Your task to perform on an android device: turn on improve location accuracy Image 0: 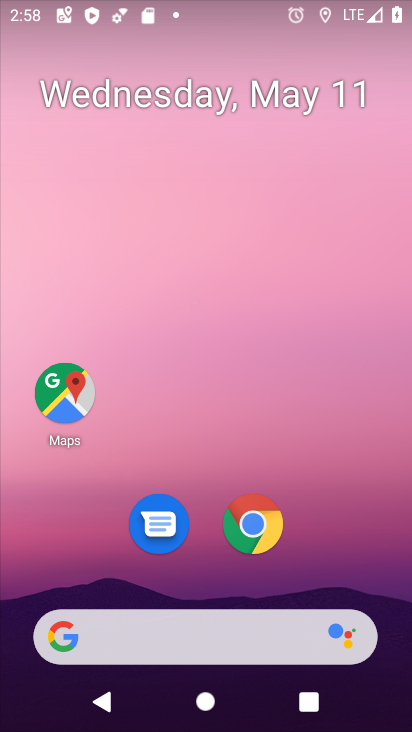
Step 0: drag from (321, 551) to (286, 35)
Your task to perform on an android device: turn on improve location accuracy Image 1: 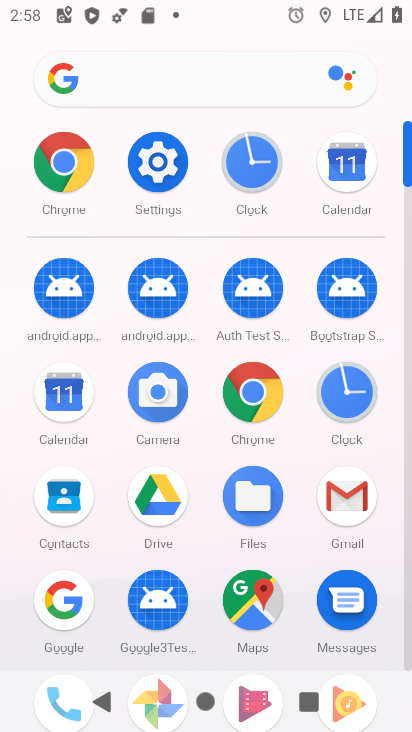
Step 1: click (167, 153)
Your task to perform on an android device: turn on improve location accuracy Image 2: 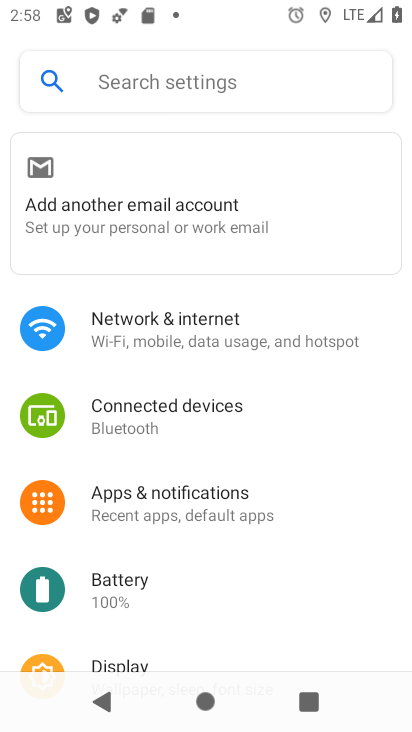
Step 2: drag from (227, 560) to (243, 332)
Your task to perform on an android device: turn on improve location accuracy Image 3: 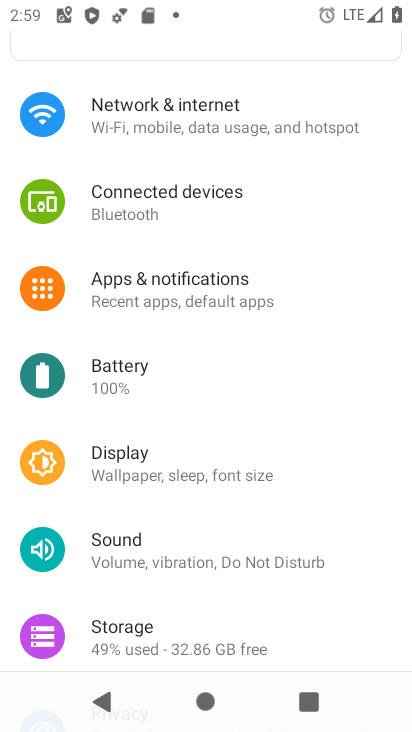
Step 3: drag from (238, 599) to (258, 140)
Your task to perform on an android device: turn on improve location accuracy Image 4: 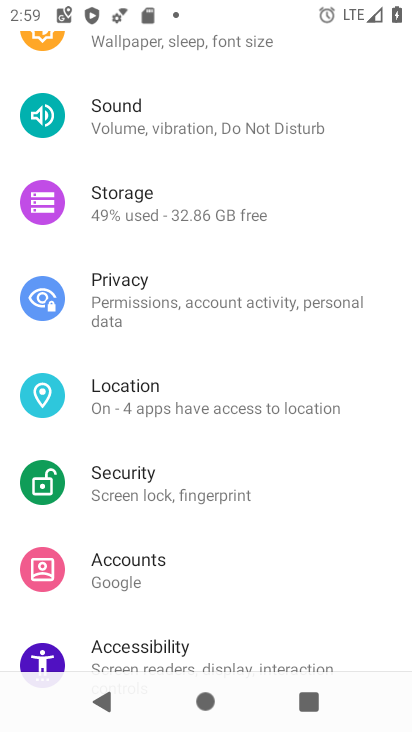
Step 4: click (201, 404)
Your task to perform on an android device: turn on improve location accuracy Image 5: 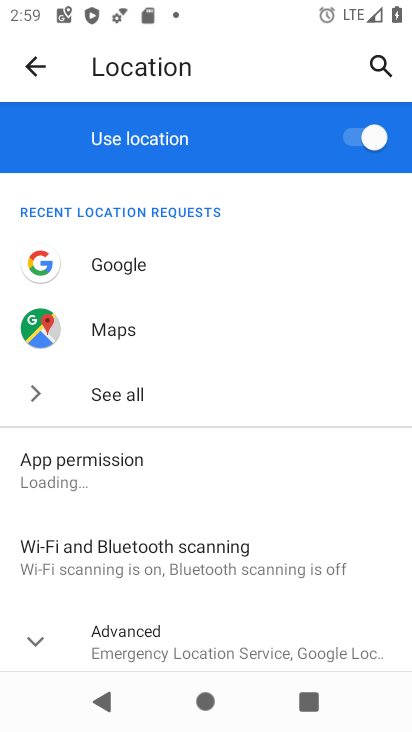
Step 5: click (33, 638)
Your task to perform on an android device: turn on improve location accuracy Image 6: 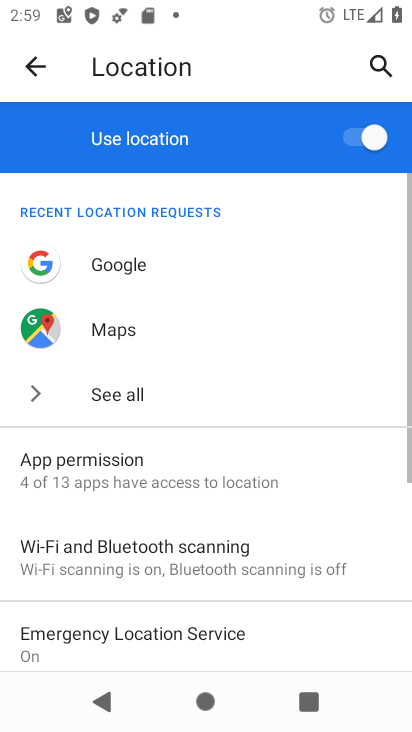
Step 6: drag from (245, 473) to (260, 162)
Your task to perform on an android device: turn on improve location accuracy Image 7: 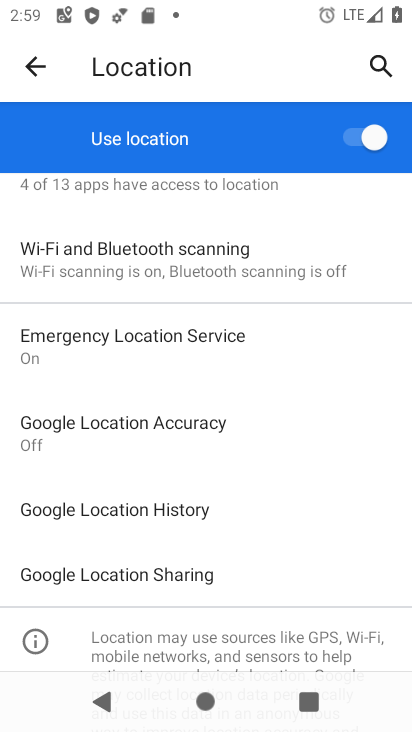
Step 7: click (171, 428)
Your task to perform on an android device: turn on improve location accuracy Image 8: 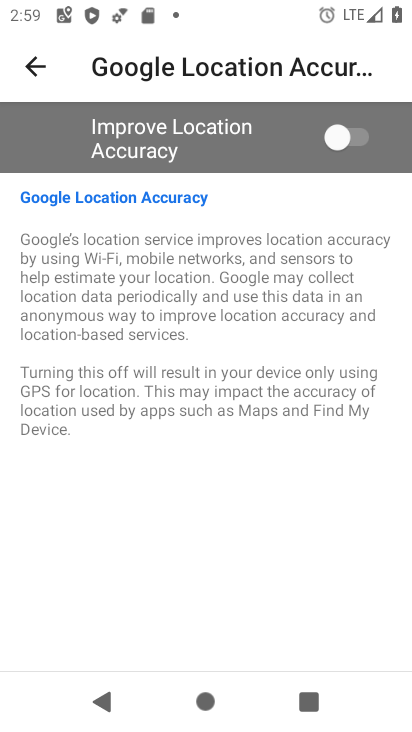
Step 8: click (347, 139)
Your task to perform on an android device: turn on improve location accuracy Image 9: 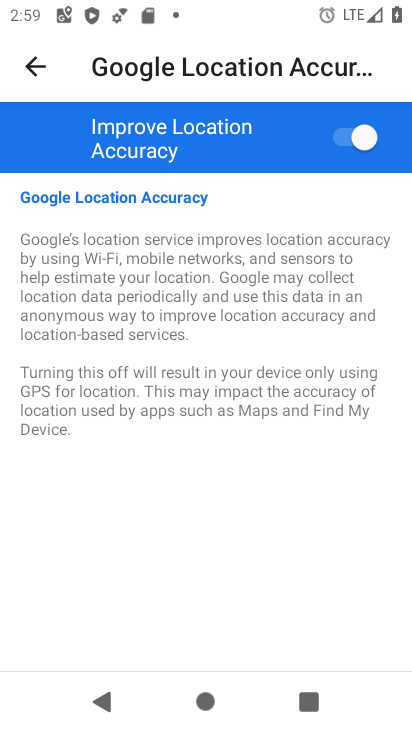
Step 9: task complete